Your task to perform on an android device: all mails in gmail Image 0: 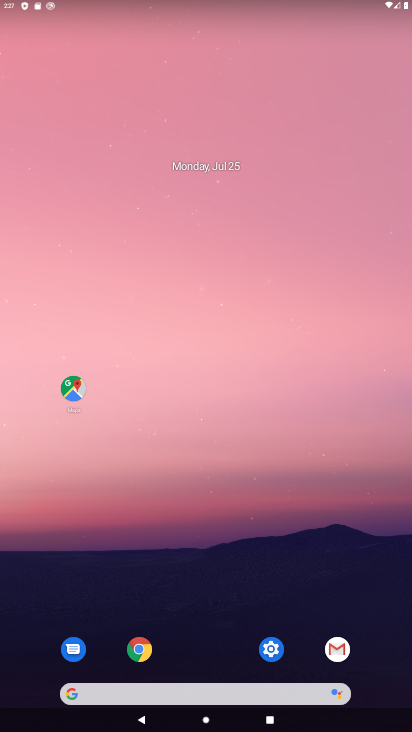
Step 0: click (359, 653)
Your task to perform on an android device: all mails in gmail Image 1: 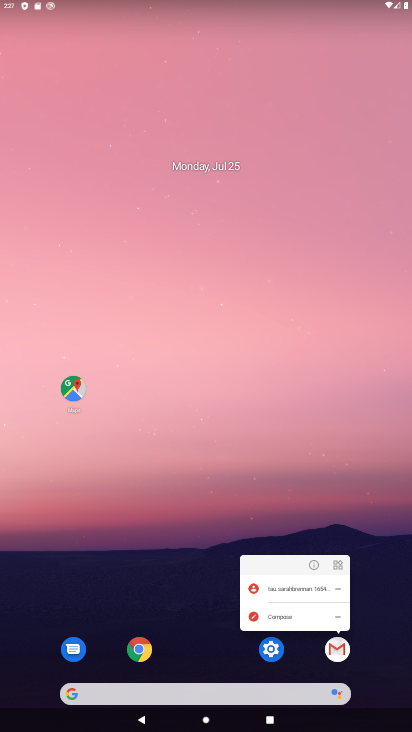
Step 1: click (340, 654)
Your task to perform on an android device: all mails in gmail Image 2: 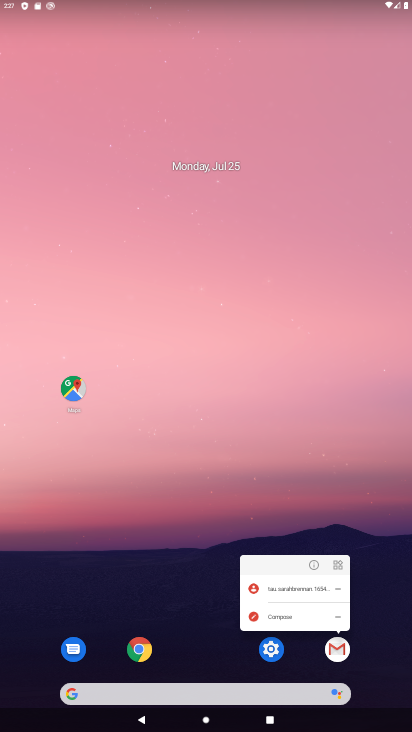
Step 2: click (336, 658)
Your task to perform on an android device: all mails in gmail Image 3: 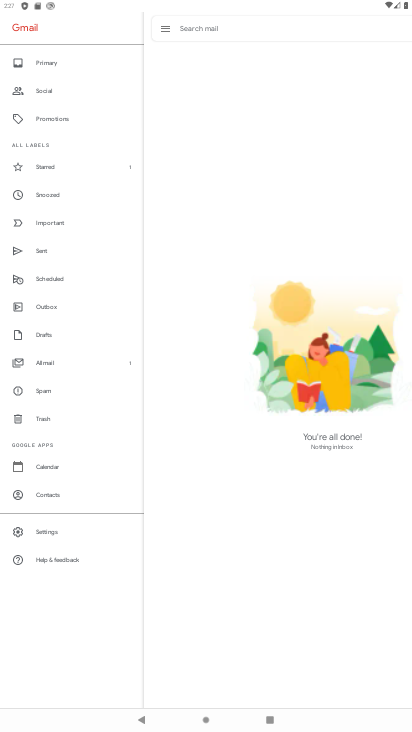
Step 3: click (47, 359)
Your task to perform on an android device: all mails in gmail Image 4: 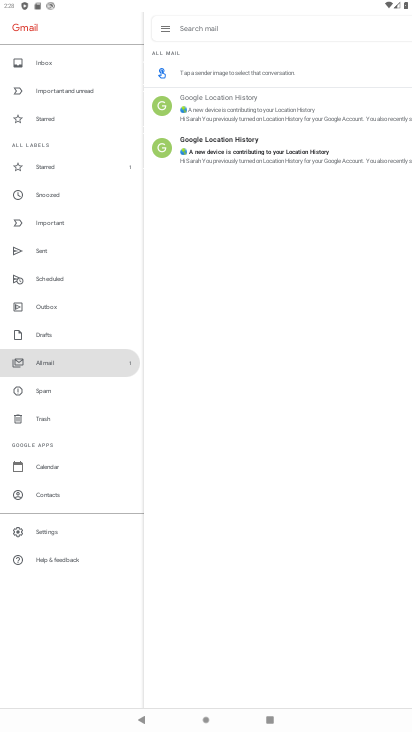
Step 4: task complete